Your task to perform on an android device: change your default location settings in chrome Image 0: 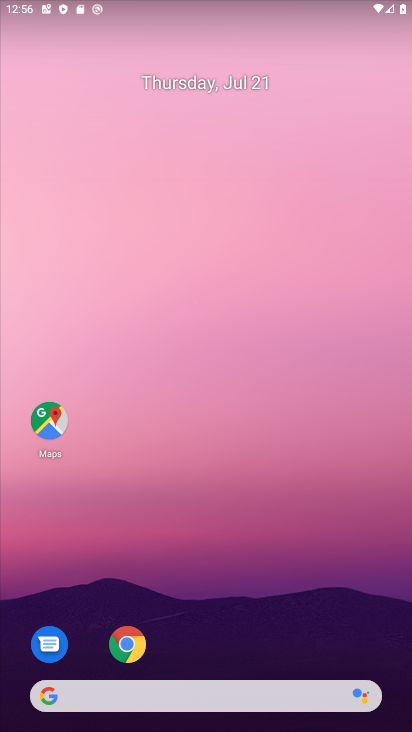
Step 0: drag from (228, 658) to (198, 133)
Your task to perform on an android device: change your default location settings in chrome Image 1: 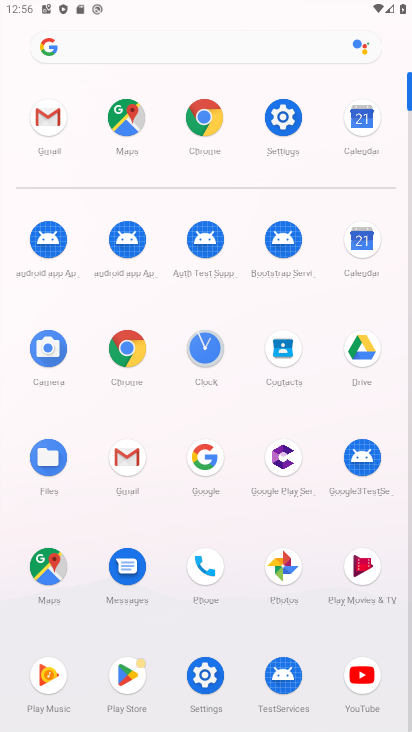
Step 1: click (127, 354)
Your task to perform on an android device: change your default location settings in chrome Image 2: 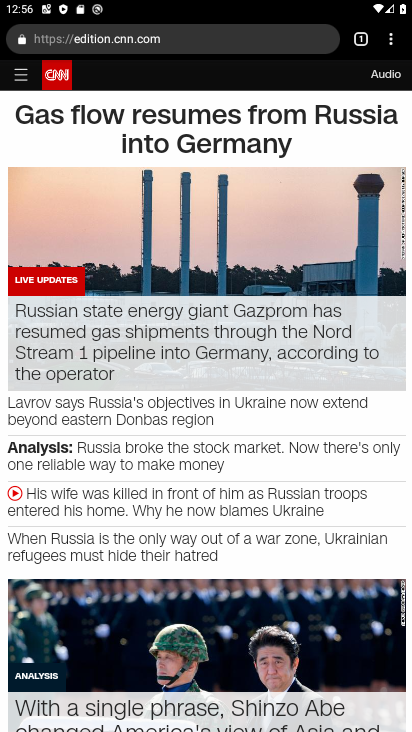
Step 2: drag from (389, 34) to (237, 420)
Your task to perform on an android device: change your default location settings in chrome Image 3: 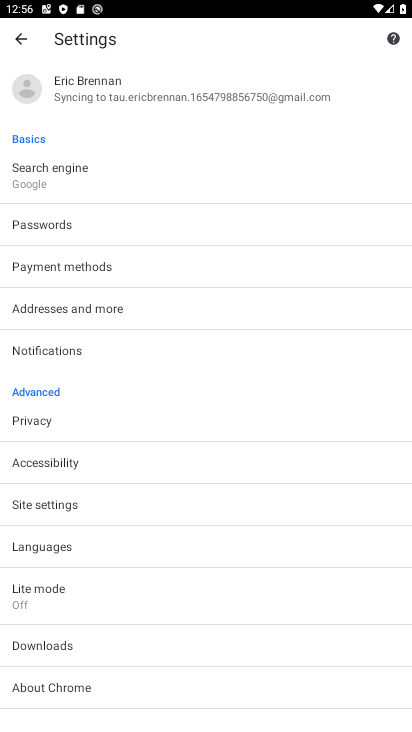
Step 3: click (58, 555)
Your task to perform on an android device: change your default location settings in chrome Image 4: 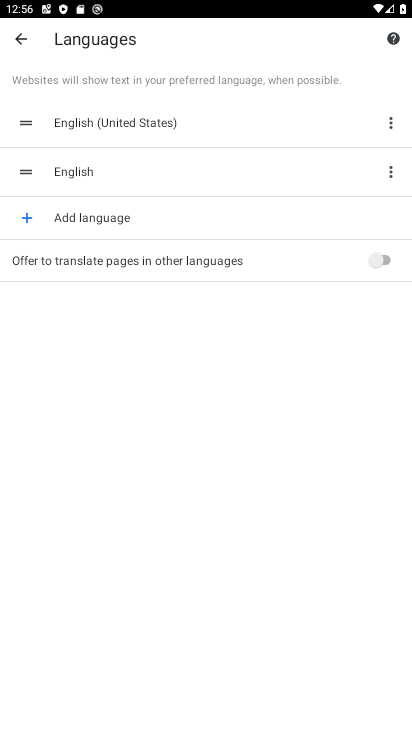
Step 4: task complete